Your task to perform on an android device: toggle priority inbox in the gmail app Image 0: 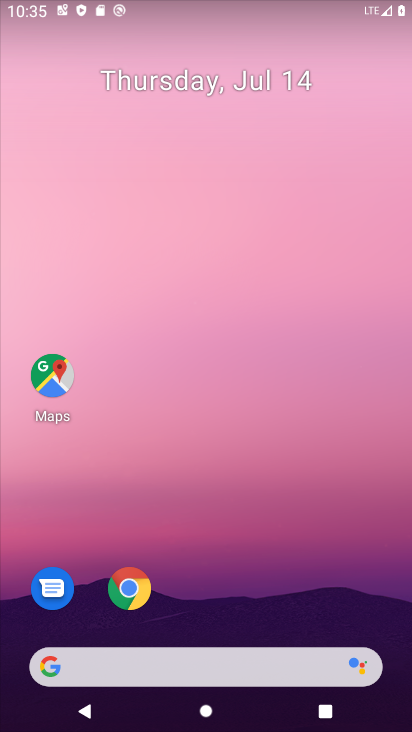
Step 0: drag from (374, 618) to (191, 29)
Your task to perform on an android device: toggle priority inbox in the gmail app Image 1: 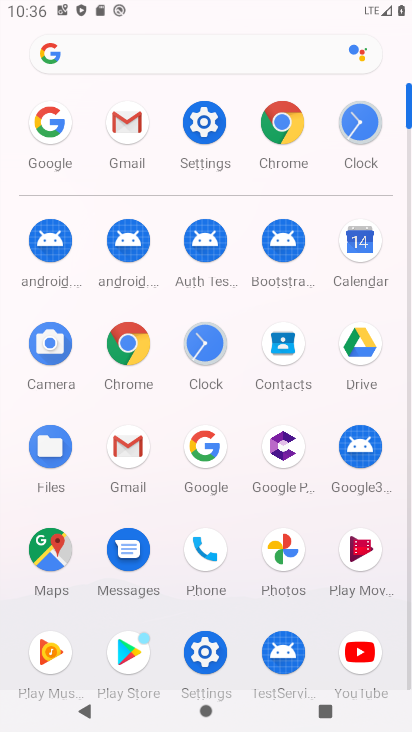
Step 1: click (136, 450)
Your task to perform on an android device: toggle priority inbox in the gmail app Image 2: 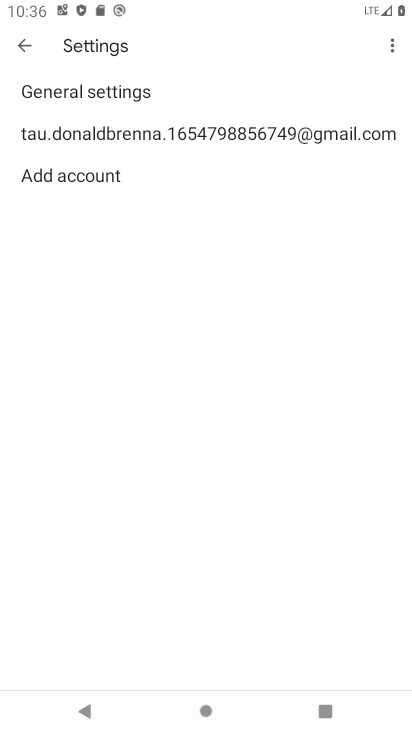
Step 2: click (237, 136)
Your task to perform on an android device: toggle priority inbox in the gmail app Image 3: 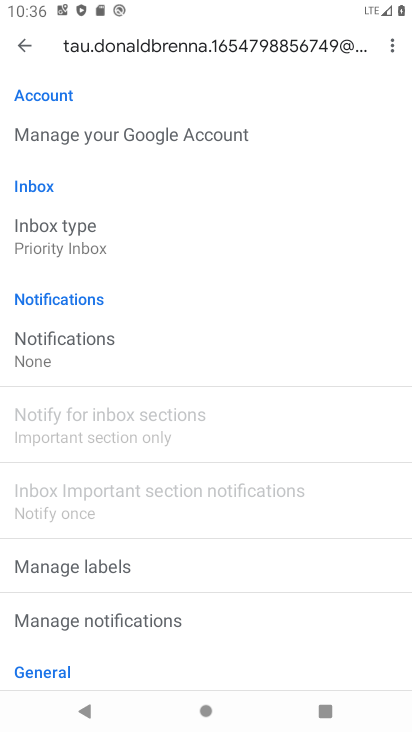
Step 3: click (77, 227)
Your task to perform on an android device: toggle priority inbox in the gmail app Image 4: 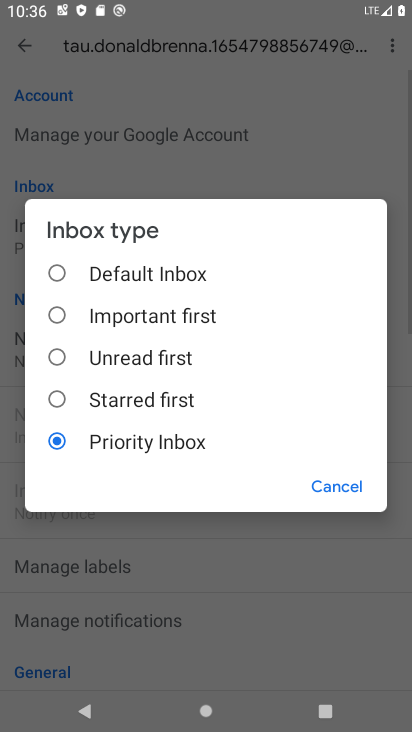
Step 4: click (73, 271)
Your task to perform on an android device: toggle priority inbox in the gmail app Image 5: 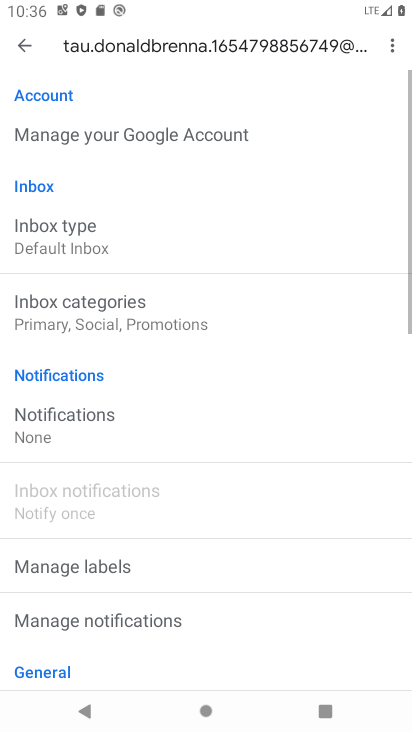
Step 5: task complete